Your task to perform on an android device: remove spam from my inbox in the gmail app Image 0: 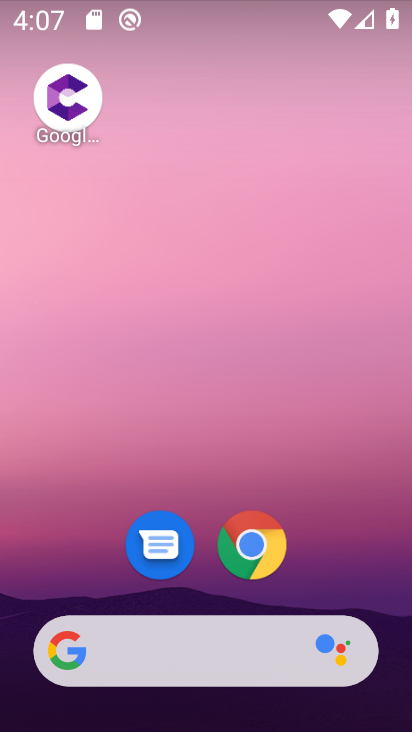
Step 0: drag from (366, 593) to (358, 219)
Your task to perform on an android device: remove spam from my inbox in the gmail app Image 1: 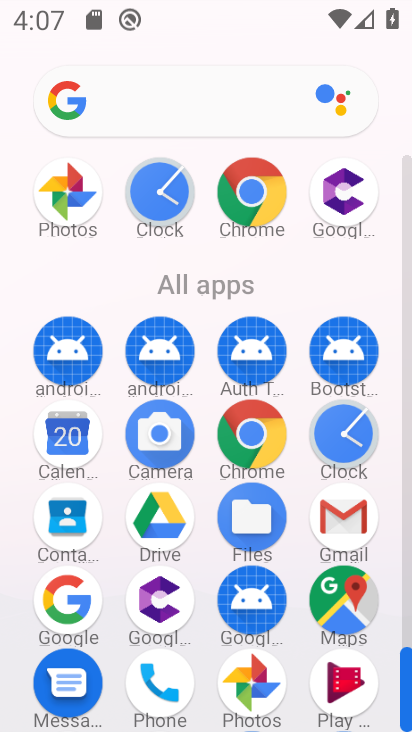
Step 1: click (362, 518)
Your task to perform on an android device: remove spam from my inbox in the gmail app Image 2: 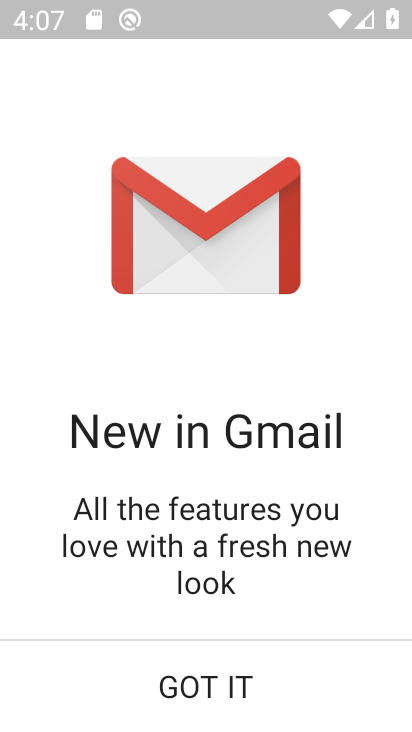
Step 2: click (280, 687)
Your task to perform on an android device: remove spam from my inbox in the gmail app Image 3: 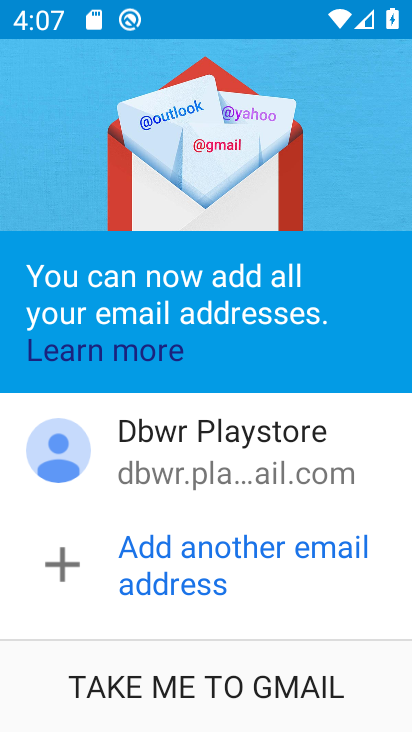
Step 3: click (280, 687)
Your task to perform on an android device: remove spam from my inbox in the gmail app Image 4: 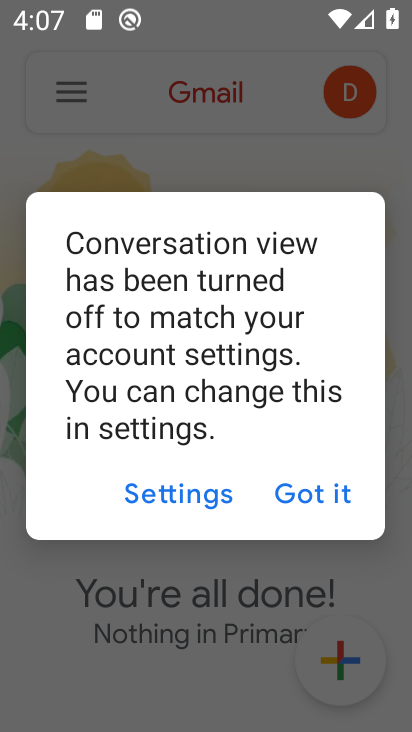
Step 4: click (280, 496)
Your task to perform on an android device: remove spam from my inbox in the gmail app Image 5: 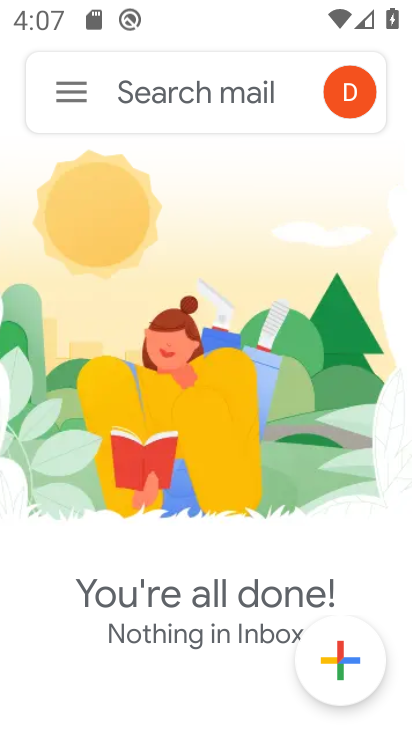
Step 5: click (69, 106)
Your task to perform on an android device: remove spam from my inbox in the gmail app Image 6: 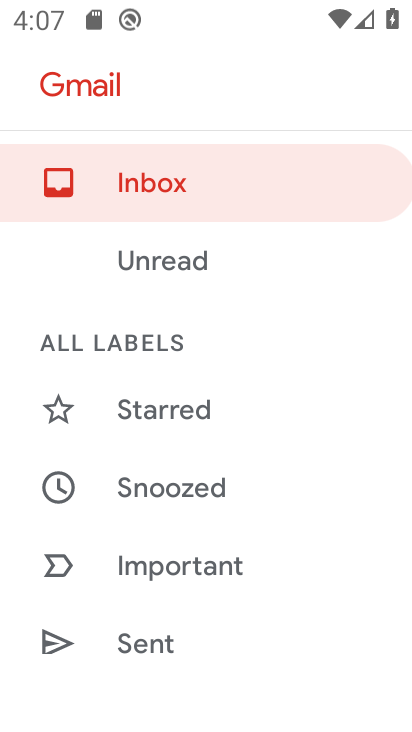
Step 6: drag from (285, 478) to (289, 407)
Your task to perform on an android device: remove spam from my inbox in the gmail app Image 7: 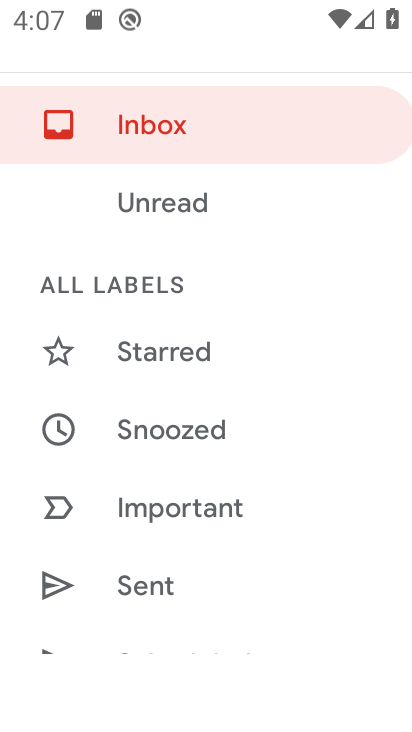
Step 7: drag from (300, 487) to (298, 420)
Your task to perform on an android device: remove spam from my inbox in the gmail app Image 8: 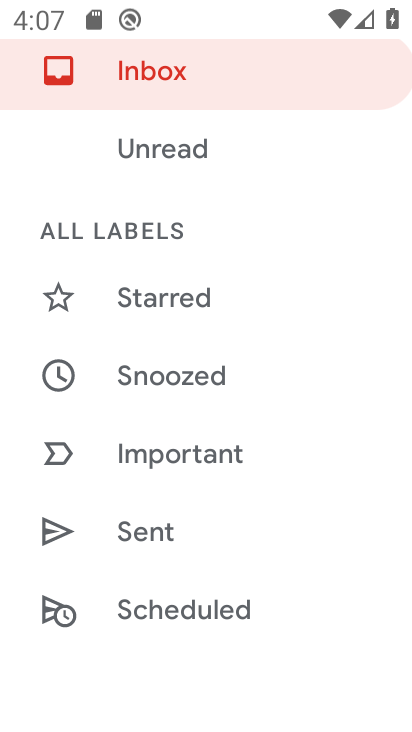
Step 8: drag from (299, 486) to (292, 421)
Your task to perform on an android device: remove spam from my inbox in the gmail app Image 9: 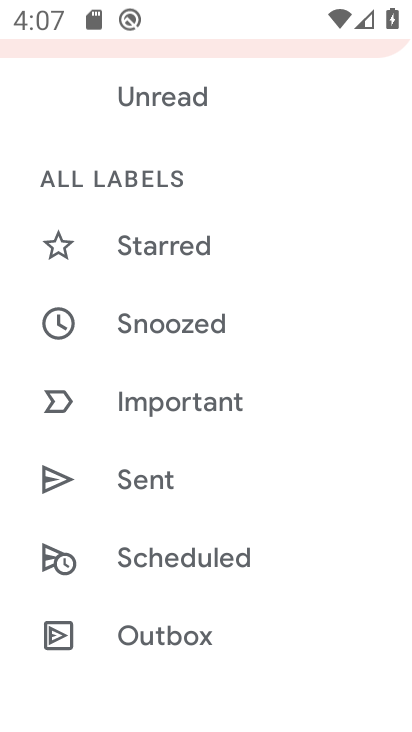
Step 9: drag from (292, 490) to (292, 421)
Your task to perform on an android device: remove spam from my inbox in the gmail app Image 10: 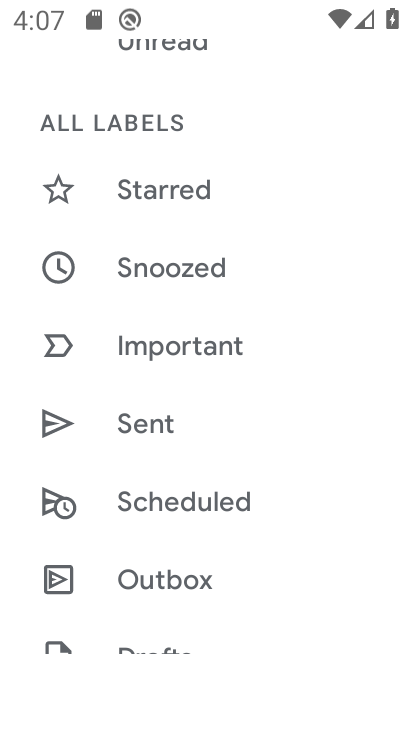
Step 10: drag from (292, 489) to (292, 422)
Your task to perform on an android device: remove spam from my inbox in the gmail app Image 11: 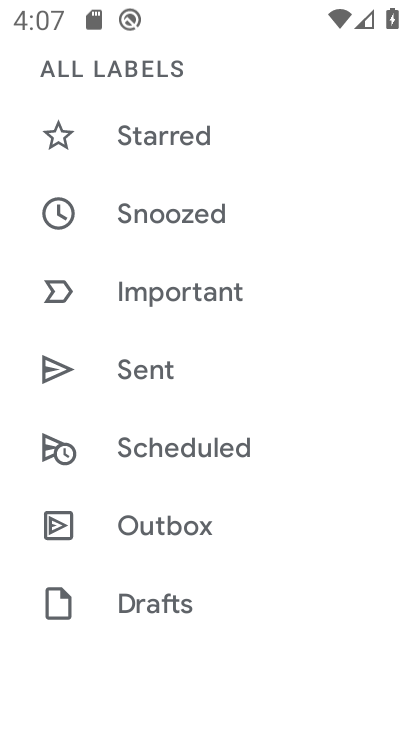
Step 11: drag from (291, 493) to (288, 422)
Your task to perform on an android device: remove spam from my inbox in the gmail app Image 12: 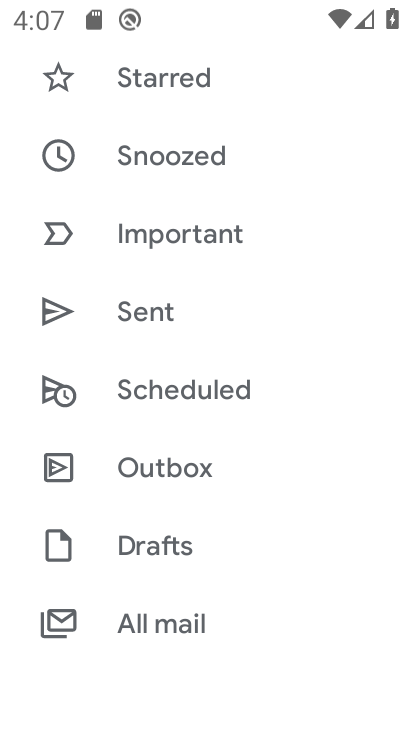
Step 12: drag from (282, 510) to (282, 445)
Your task to perform on an android device: remove spam from my inbox in the gmail app Image 13: 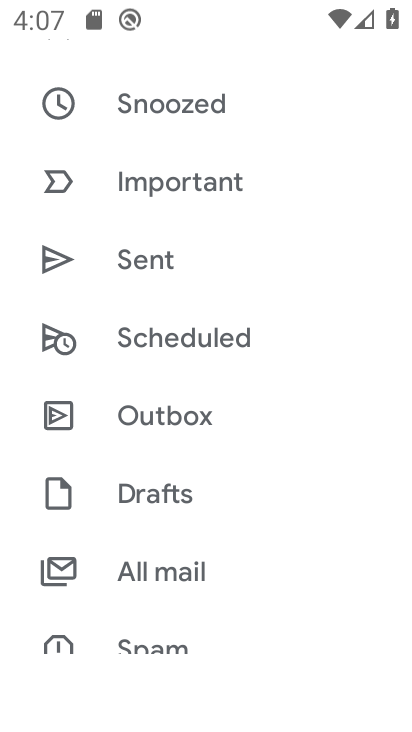
Step 13: drag from (272, 497) to (270, 426)
Your task to perform on an android device: remove spam from my inbox in the gmail app Image 14: 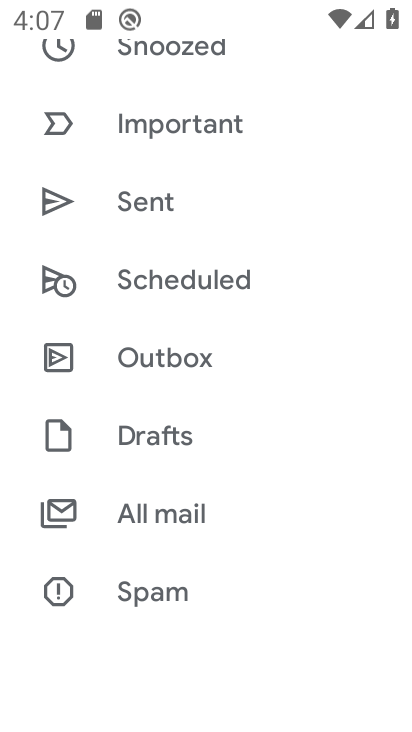
Step 14: drag from (270, 486) to (270, 426)
Your task to perform on an android device: remove spam from my inbox in the gmail app Image 15: 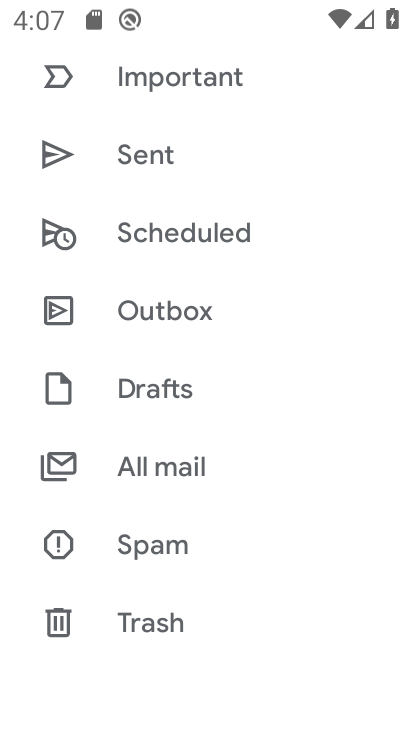
Step 15: drag from (266, 480) to (258, 400)
Your task to perform on an android device: remove spam from my inbox in the gmail app Image 16: 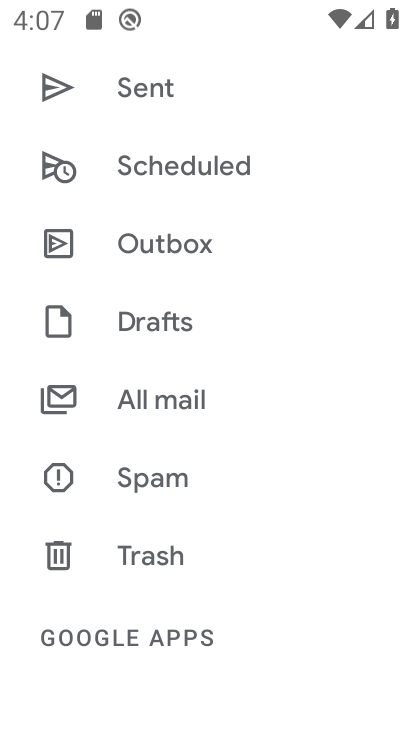
Step 16: click (232, 482)
Your task to perform on an android device: remove spam from my inbox in the gmail app Image 17: 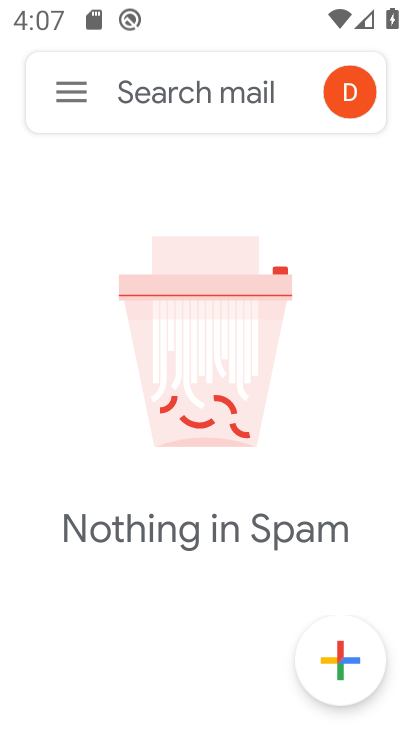
Step 17: task complete